Your task to perform on an android device: Open network settings Image 0: 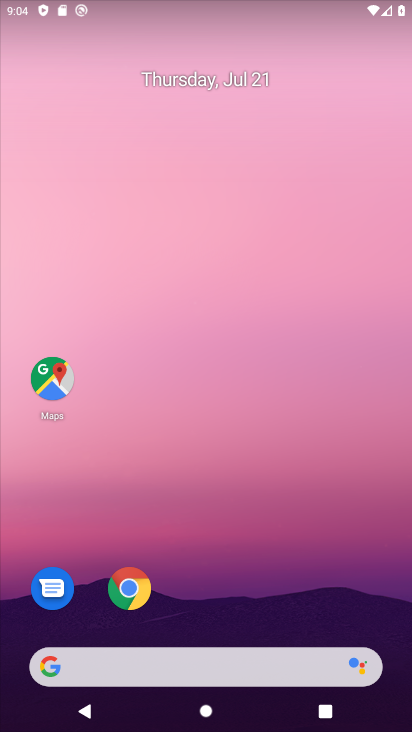
Step 0: drag from (385, 685) to (266, 133)
Your task to perform on an android device: Open network settings Image 1: 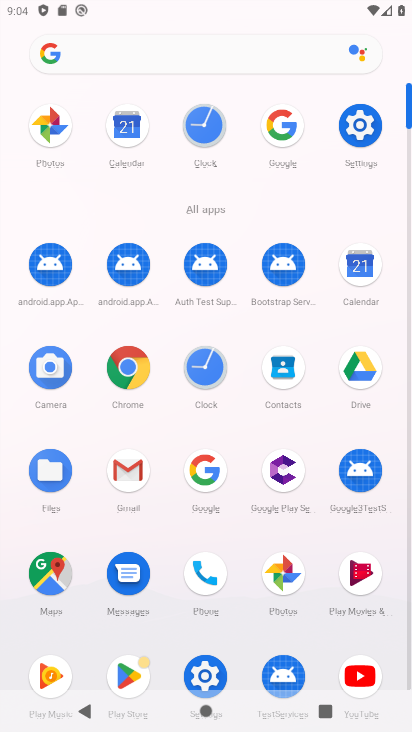
Step 1: click (362, 122)
Your task to perform on an android device: Open network settings Image 2: 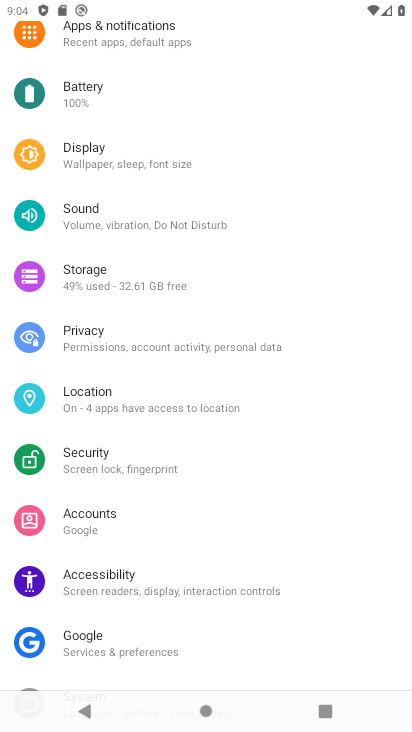
Step 2: drag from (227, 83) to (336, 456)
Your task to perform on an android device: Open network settings Image 3: 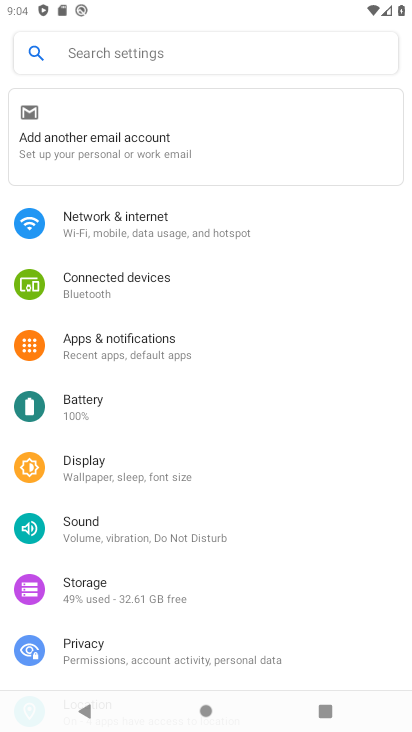
Step 3: drag from (313, 209) to (339, 554)
Your task to perform on an android device: Open network settings Image 4: 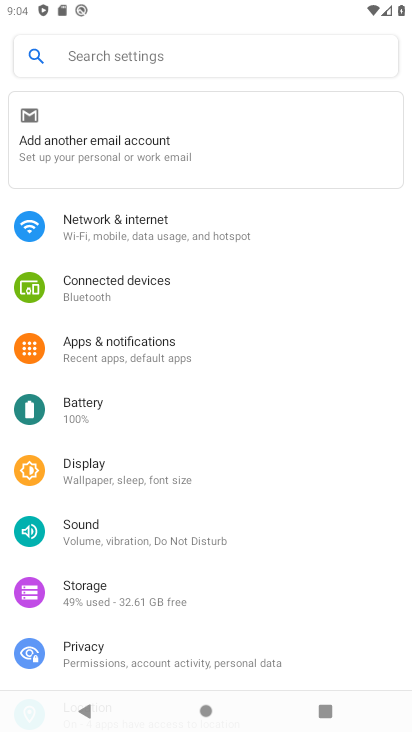
Step 4: click (150, 221)
Your task to perform on an android device: Open network settings Image 5: 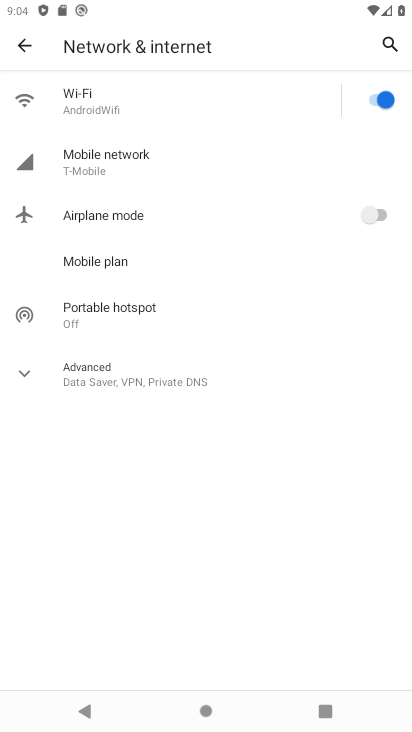
Step 5: click (153, 156)
Your task to perform on an android device: Open network settings Image 6: 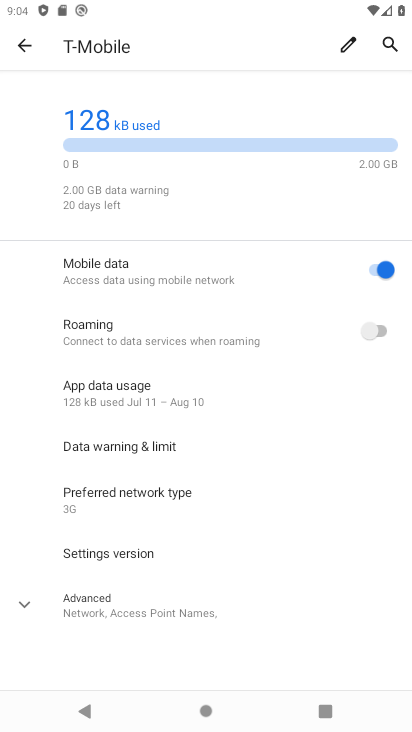
Step 6: click (36, 609)
Your task to perform on an android device: Open network settings Image 7: 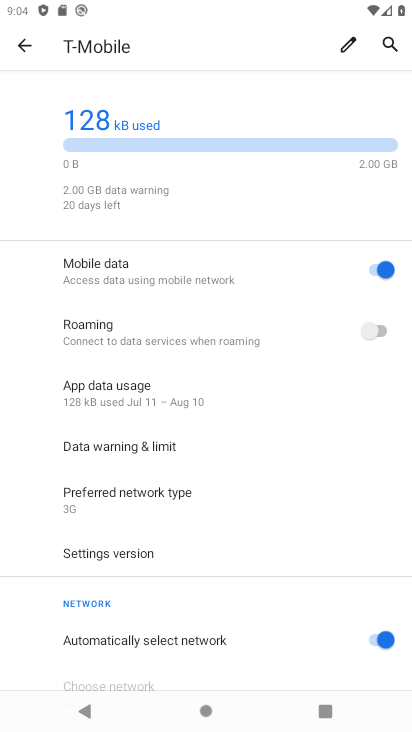
Step 7: task complete